Your task to perform on an android device: Open Amazon Image 0: 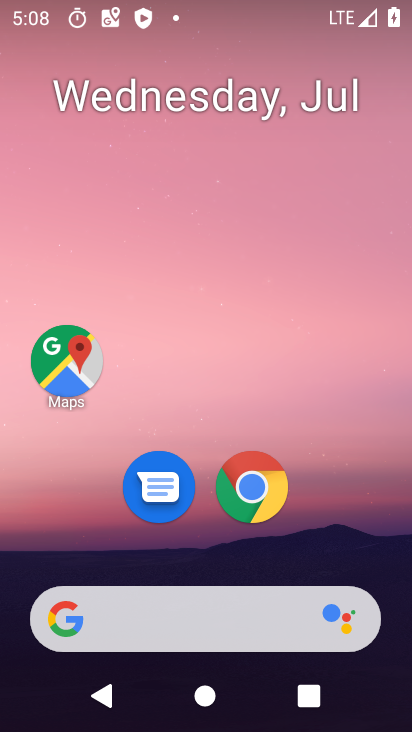
Step 0: click (256, 470)
Your task to perform on an android device: Open Amazon Image 1: 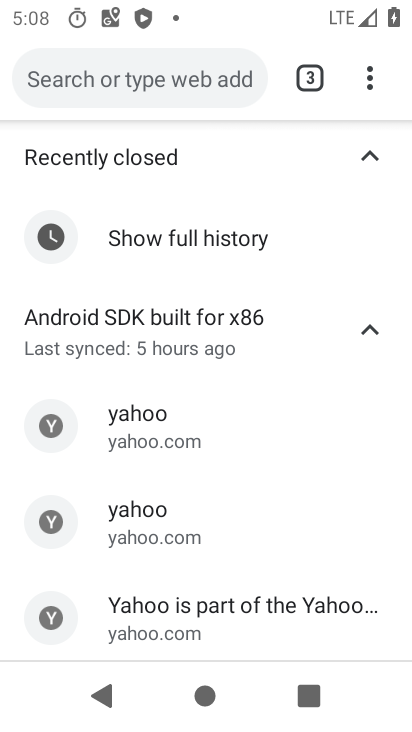
Step 1: click (321, 66)
Your task to perform on an android device: Open Amazon Image 2: 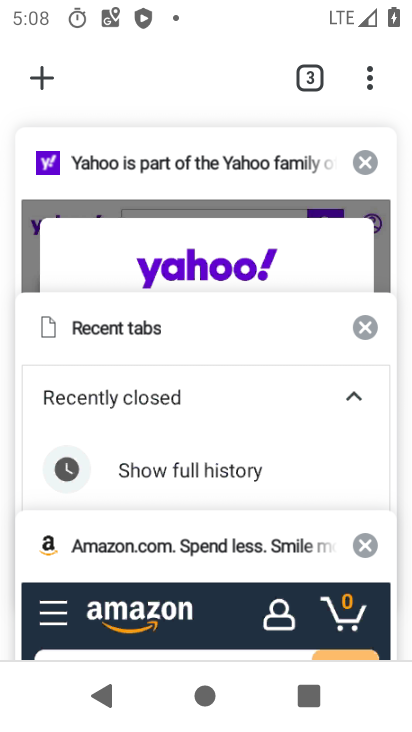
Step 2: click (41, 69)
Your task to perform on an android device: Open Amazon Image 3: 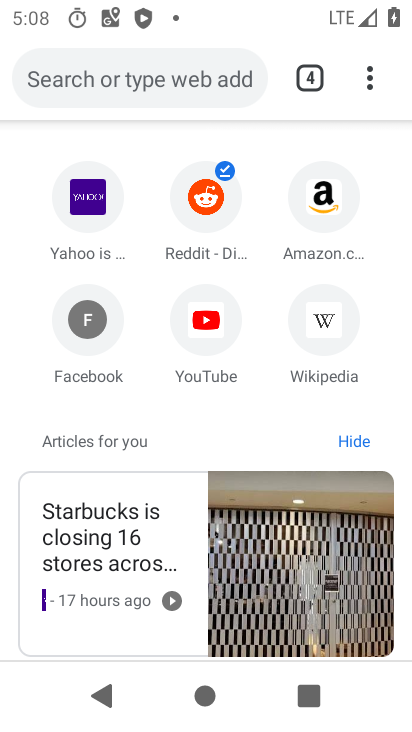
Step 3: click (331, 187)
Your task to perform on an android device: Open Amazon Image 4: 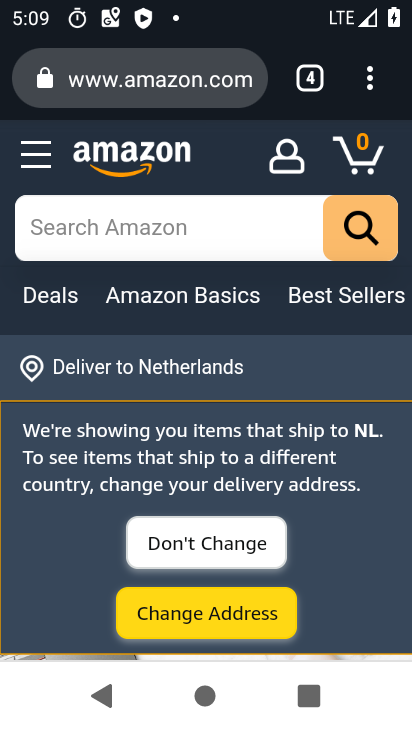
Step 4: task complete